Your task to perform on an android device: Search for seafood restaurants on Google Maps Image 0: 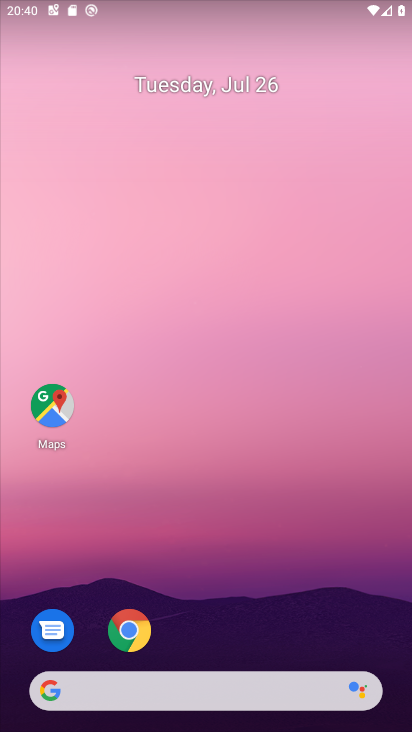
Step 0: click (62, 416)
Your task to perform on an android device: Search for seafood restaurants on Google Maps Image 1: 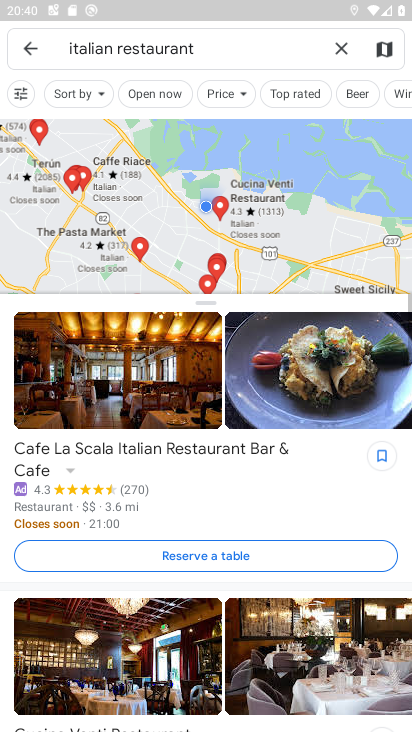
Step 1: click (333, 46)
Your task to perform on an android device: Search for seafood restaurants on Google Maps Image 2: 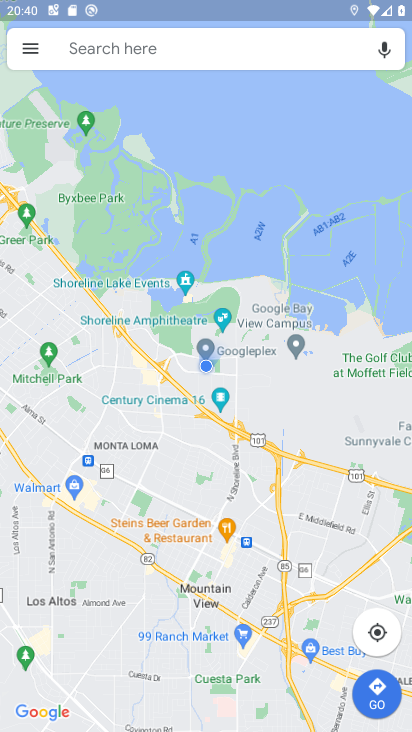
Step 2: click (142, 43)
Your task to perform on an android device: Search for seafood restaurants on Google Maps Image 3: 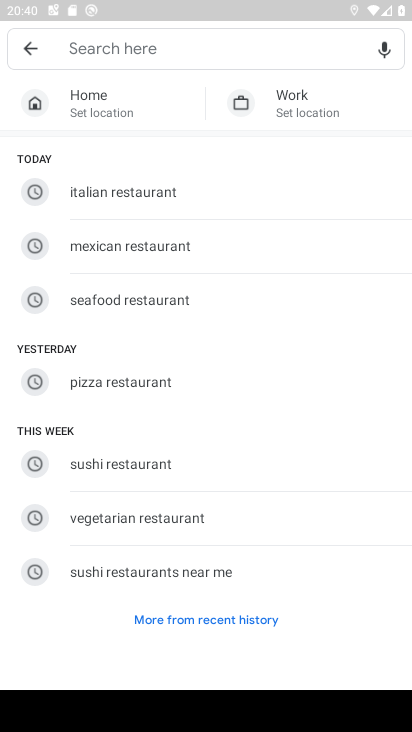
Step 3: type "seafood restaurants"
Your task to perform on an android device: Search for seafood restaurants on Google Maps Image 4: 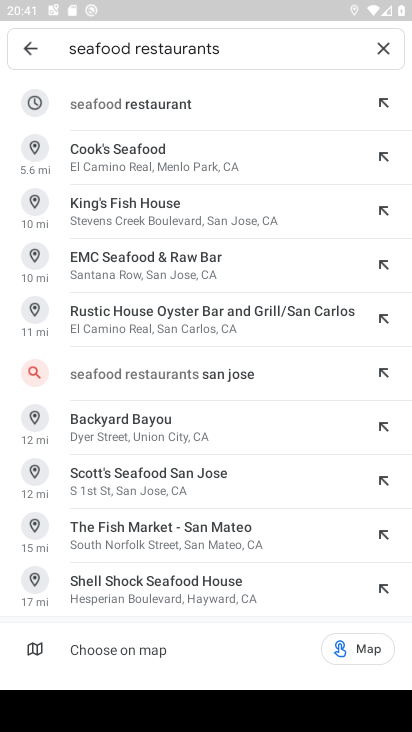
Step 4: click (139, 104)
Your task to perform on an android device: Search for seafood restaurants on Google Maps Image 5: 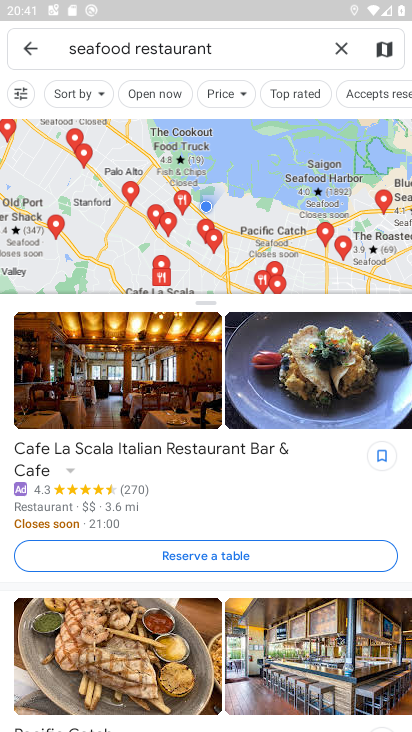
Step 5: task complete